Your task to perform on an android device: Open Google Chrome Image 0: 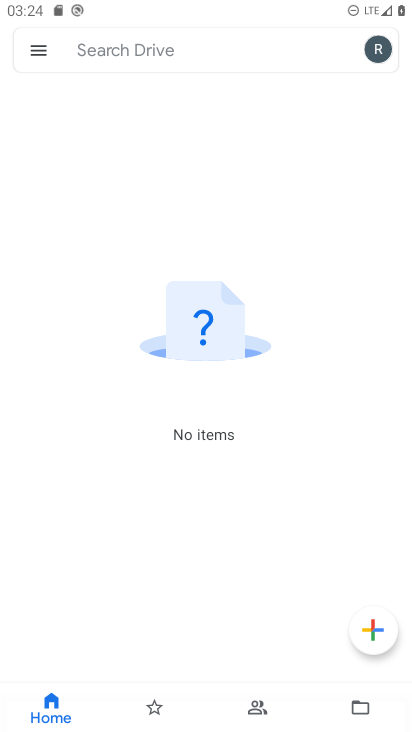
Step 0: press home button
Your task to perform on an android device: Open Google Chrome Image 1: 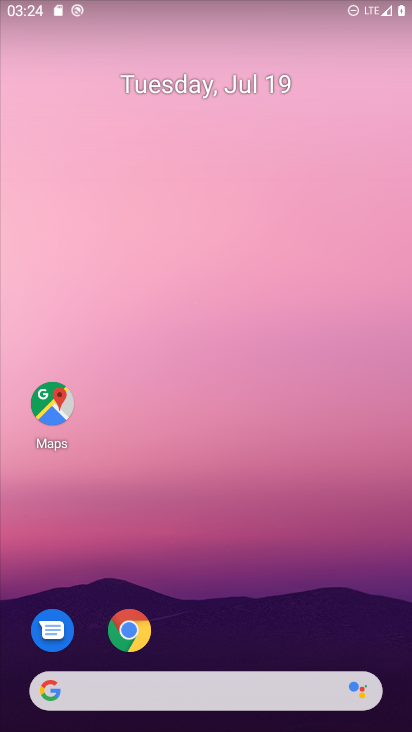
Step 1: click (130, 632)
Your task to perform on an android device: Open Google Chrome Image 2: 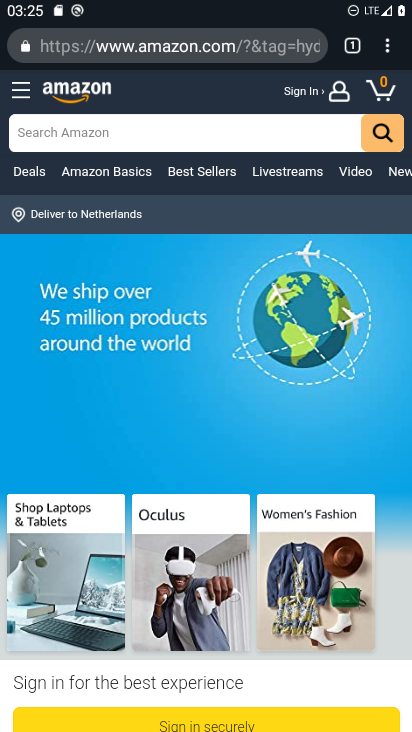
Step 2: task complete